Your task to perform on an android device: change notification settings in the gmail app Image 0: 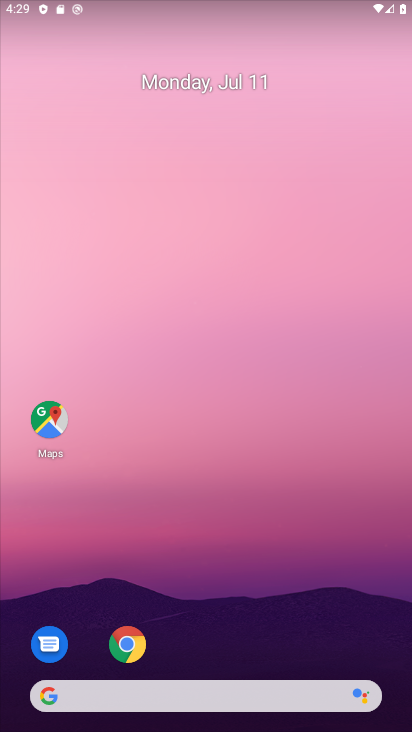
Step 0: drag from (276, 655) to (307, 13)
Your task to perform on an android device: change notification settings in the gmail app Image 1: 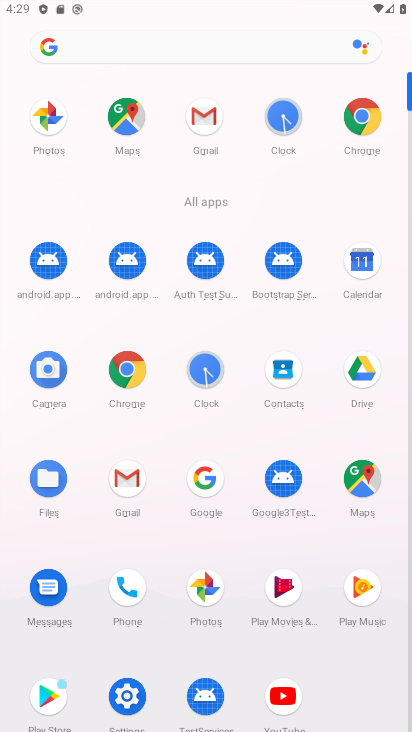
Step 1: click (120, 472)
Your task to perform on an android device: change notification settings in the gmail app Image 2: 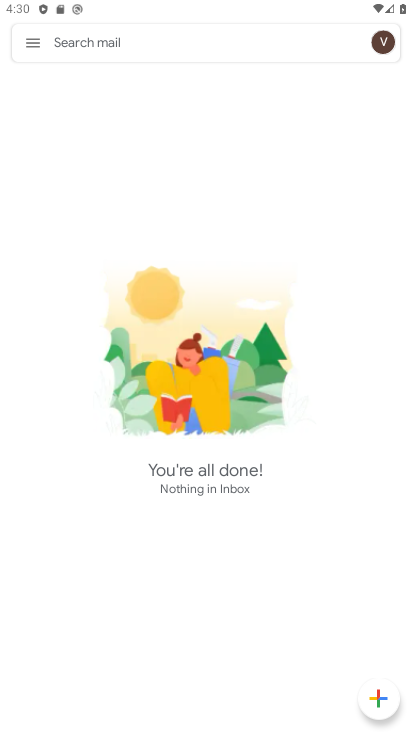
Step 2: press home button
Your task to perform on an android device: change notification settings in the gmail app Image 3: 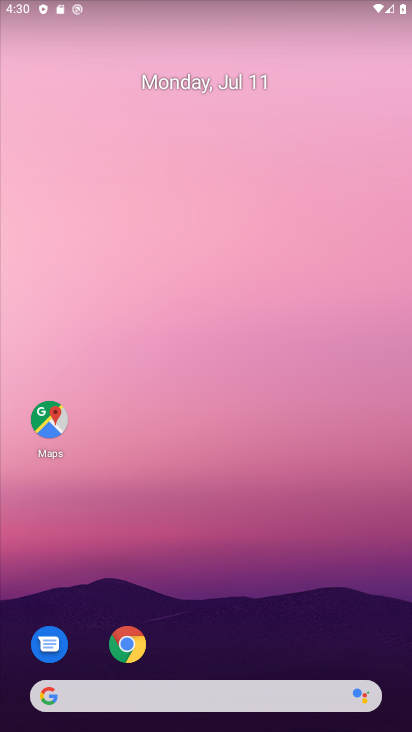
Step 3: drag from (163, 688) to (217, 121)
Your task to perform on an android device: change notification settings in the gmail app Image 4: 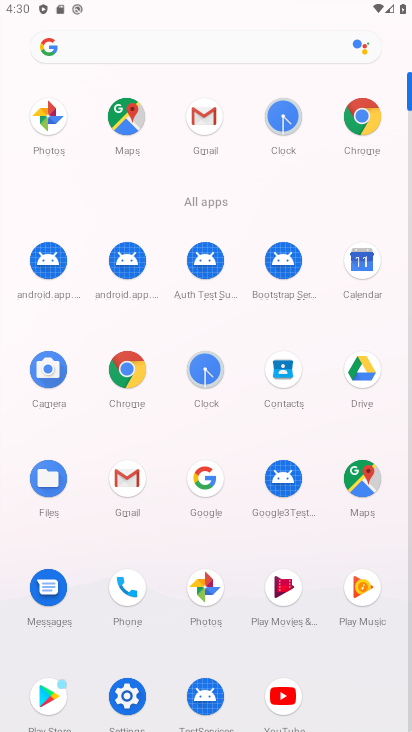
Step 4: click (122, 496)
Your task to perform on an android device: change notification settings in the gmail app Image 5: 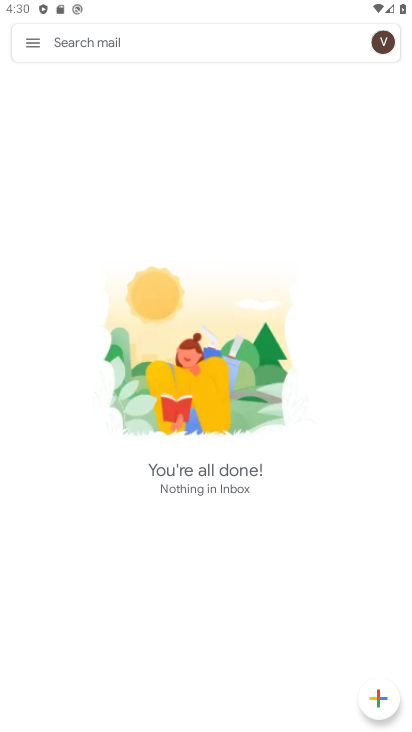
Step 5: click (26, 37)
Your task to perform on an android device: change notification settings in the gmail app Image 6: 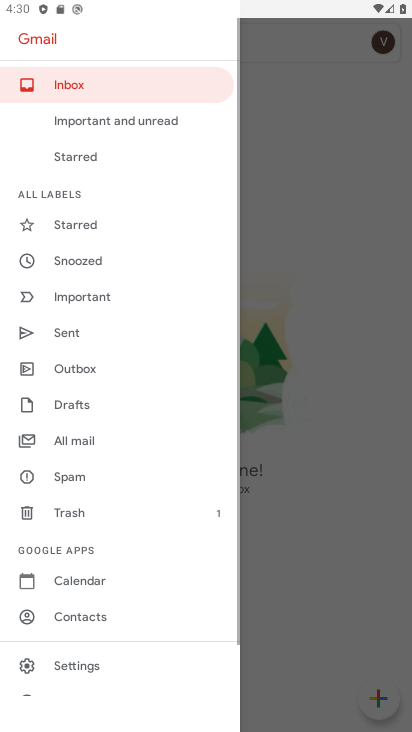
Step 6: click (109, 668)
Your task to perform on an android device: change notification settings in the gmail app Image 7: 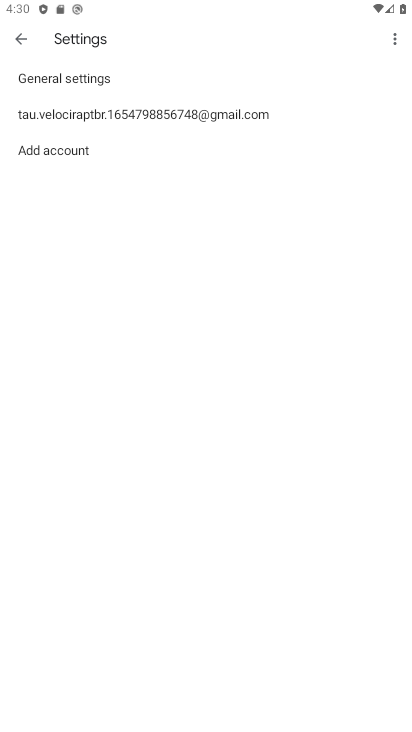
Step 7: click (185, 112)
Your task to perform on an android device: change notification settings in the gmail app Image 8: 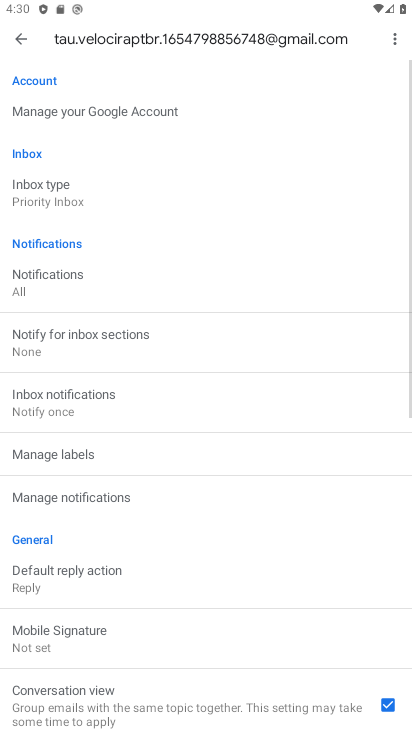
Step 8: click (50, 504)
Your task to perform on an android device: change notification settings in the gmail app Image 9: 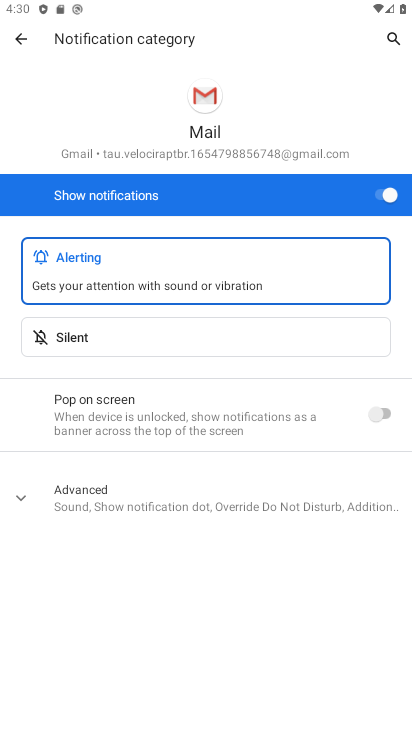
Step 9: click (397, 190)
Your task to perform on an android device: change notification settings in the gmail app Image 10: 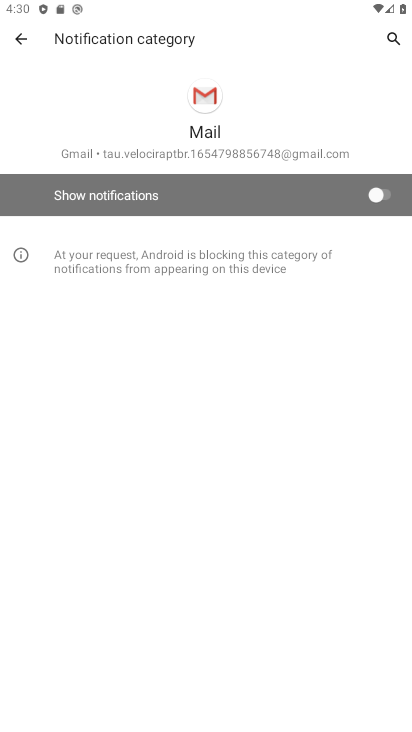
Step 10: task complete